Your task to perform on an android device: change the clock display to digital Image 0: 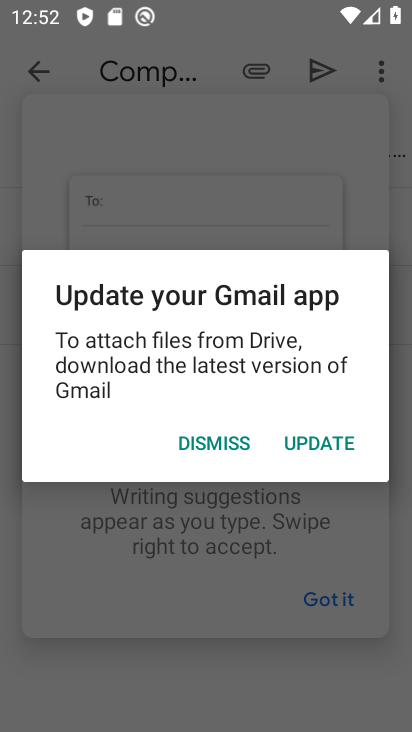
Step 0: press home button
Your task to perform on an android device: change the clock display to digital Image 1: 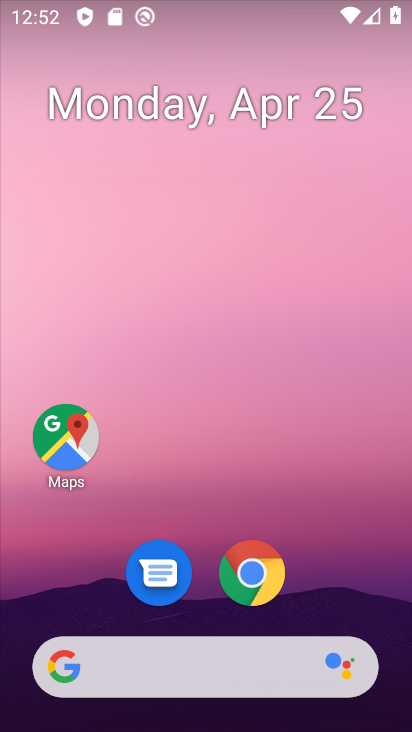
Step 1: drag from (201, 603) to (219, 214)
Your task to perform on an android device: change the clock display to digital Image 2: 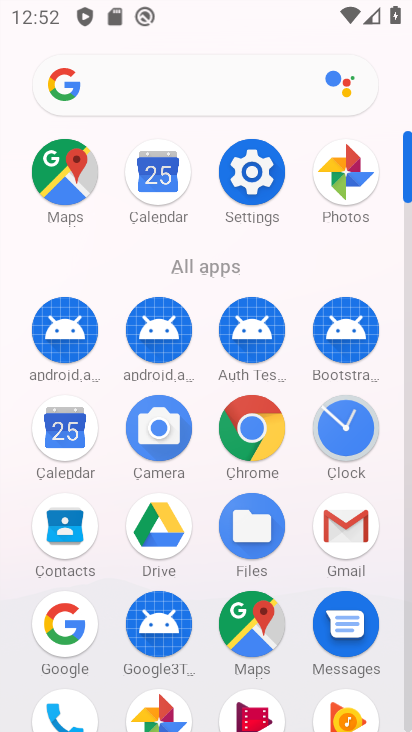
Step 2: click (351, 435)
Your task to perform on an android device: change the clock display to digital Image 3: 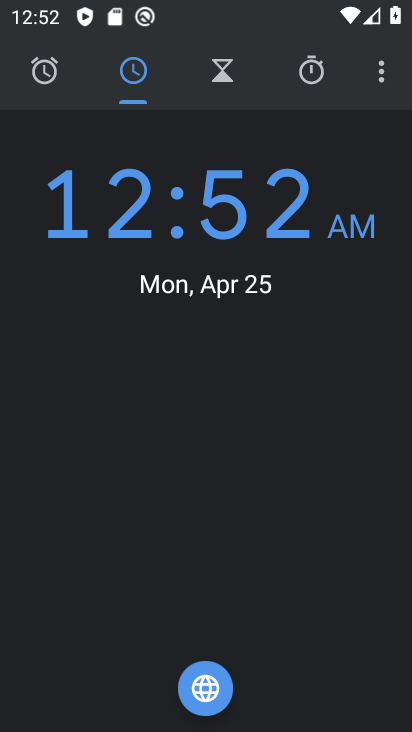
Step 3: click (383, 74)
Your task to perform on an android device: change the clock display to digital Image 4: 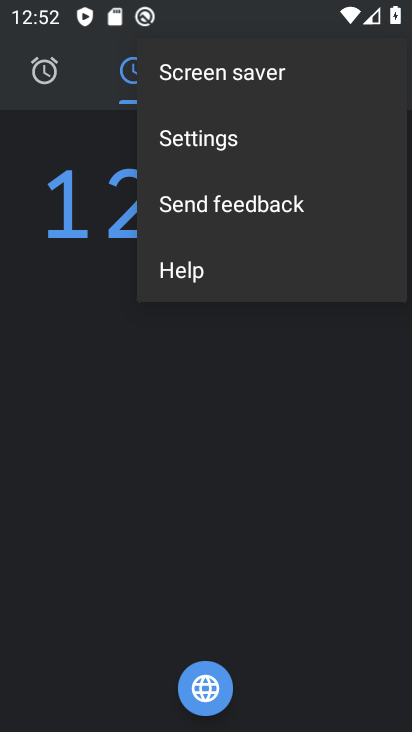
Step 4: click (228, 140)
Your task to perform on an android device: change the clock display to digital Image 5: 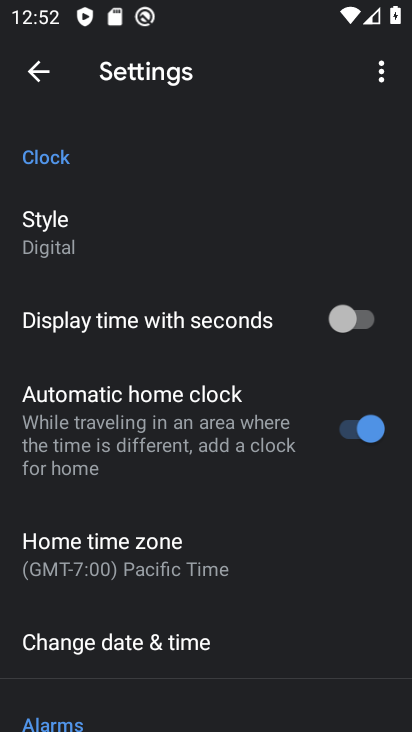
Step 5: task complete